Your task to perform on an android device: move an email to a new category in the gmail app Image 0: 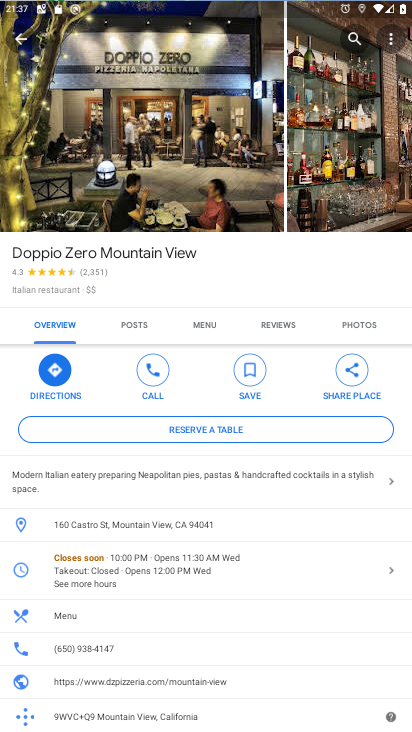
Step 0: press home button
Your task to perform on an android device: move an email to a new category in the gmail app Image 1: 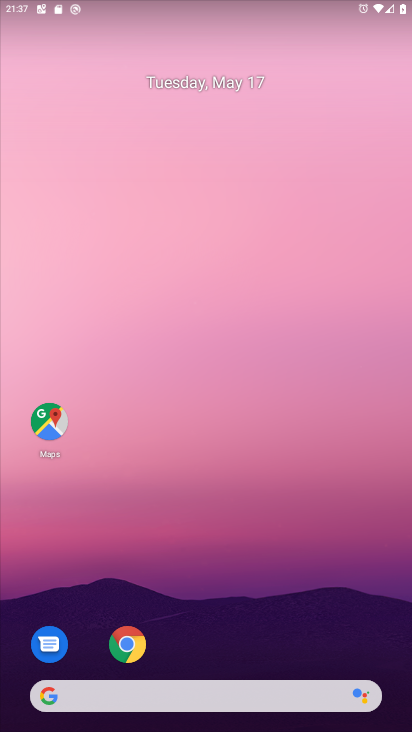
Step 1: drag from (215, 640) to (239, 413)
Your task to perform on an android device: move an email to a new category in the gmail app Image 2: 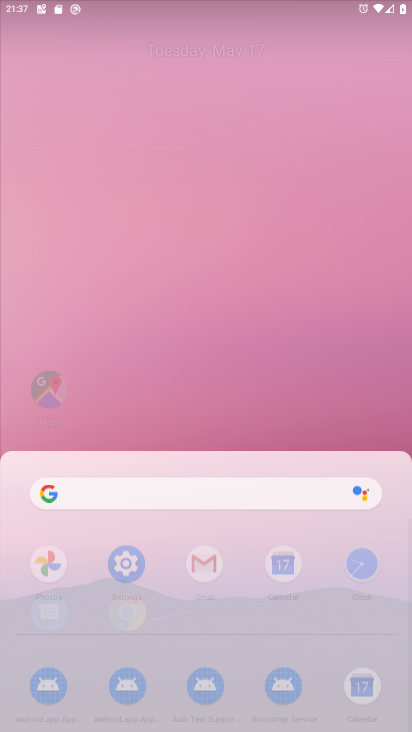
Step 2: click (255, 121)
Your task to perform on an android device: move an email to a new category in the gmail app Image 3: 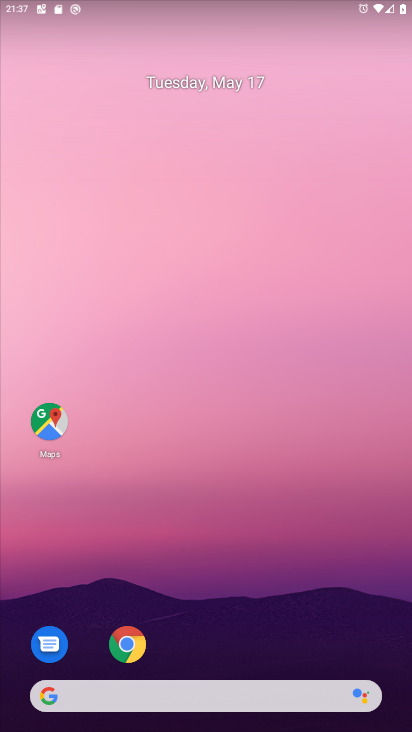
Step 3: drag from (209, 656) to (253, 103)
Your task to perform on an android device: move an email to a new category in the gmail app Image 4: 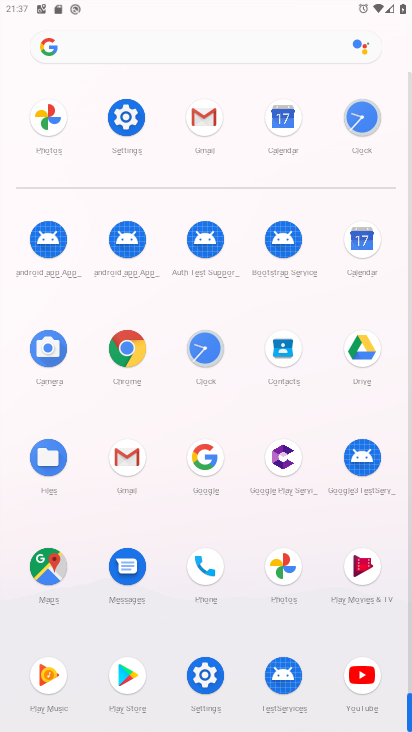
Step 4: click (126, 462)
Your task to perform on an android device: move an email to a new category in the gmail app Image 5: 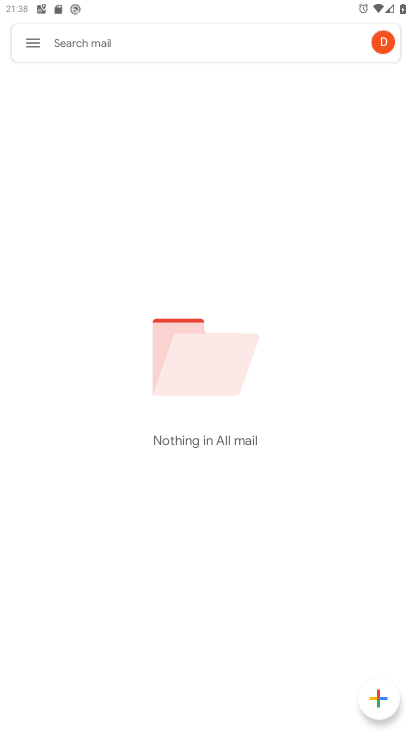
Step 5: task complete